Your task to perform on an android device: change the clock style Image 0: 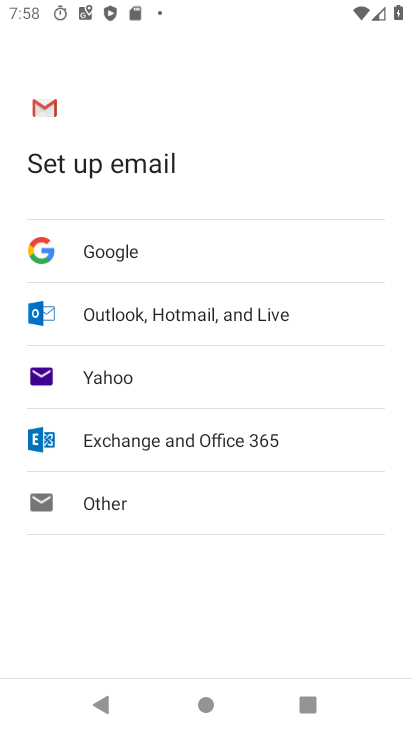
Step 0: press home button
Your task to perform on an android device: change the clock style Image 1: 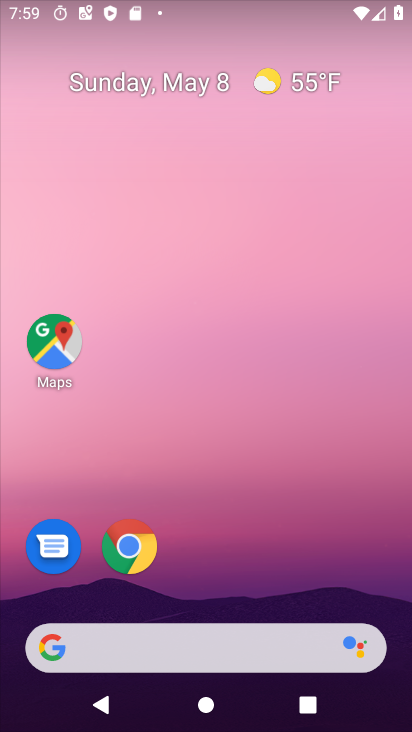
Step 1: drag from (251, 543) to (236, 44)
Your task to perform on an android device: change the clock style Image 2: 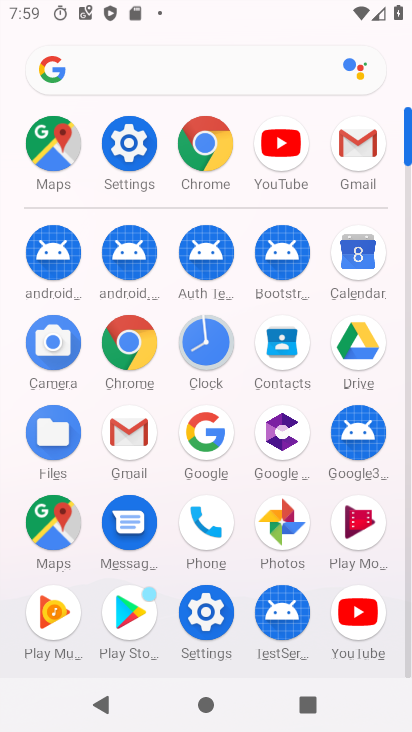
Step 2: click (214, 329)
Your task to perform on an android device: change the clock style Image 3: 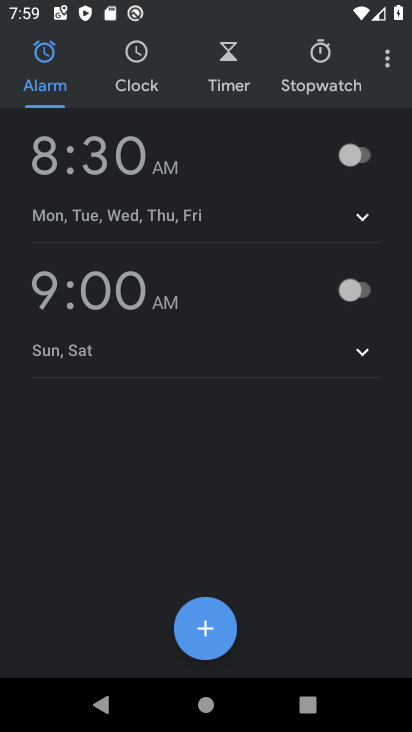
Step 3: click (139, 64)
Your task to perform on an android device: change the clock style Image 4: 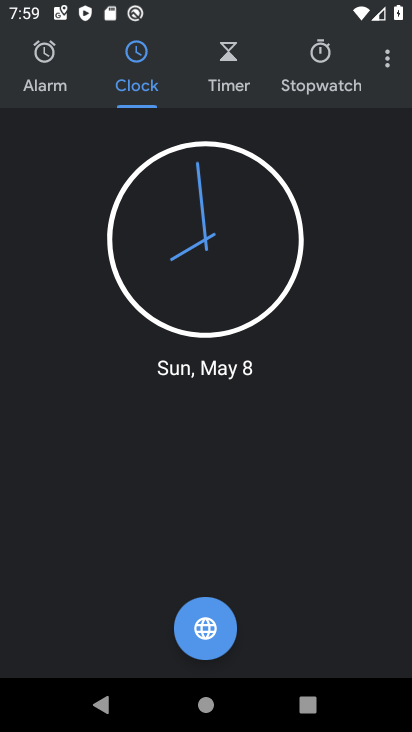
Step 4: click (385, 61)
Your task to perform on an android device: change the clock style Image 5: 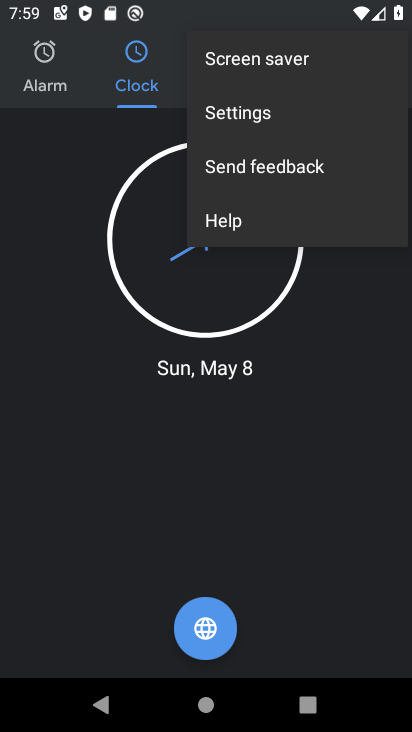
Step 5: click (292, 110)
Your task to perform on an android device: change the clock style Image 6: 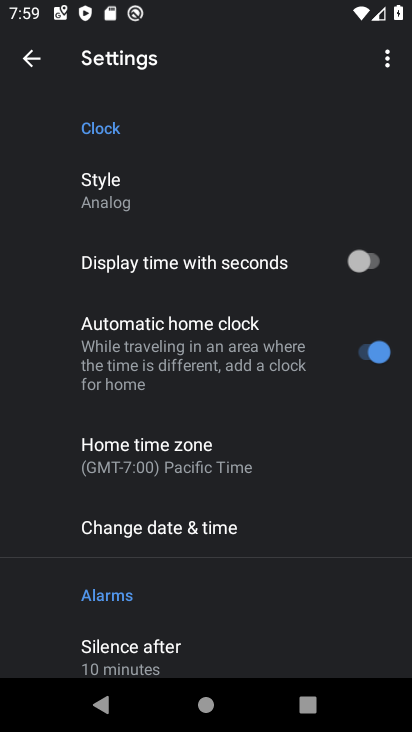
Step 6: click (138, 188)
Your task to perform on an android device: change the clock style Image 7: 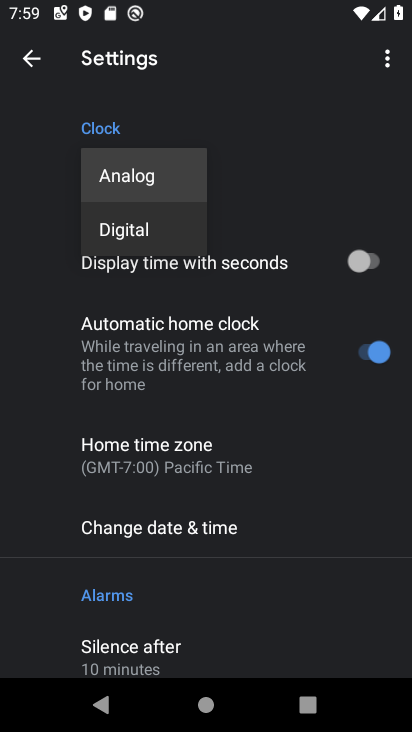
Step 7: click (140, 220)
Your task to perform on an android device: change the clock style Image 8: 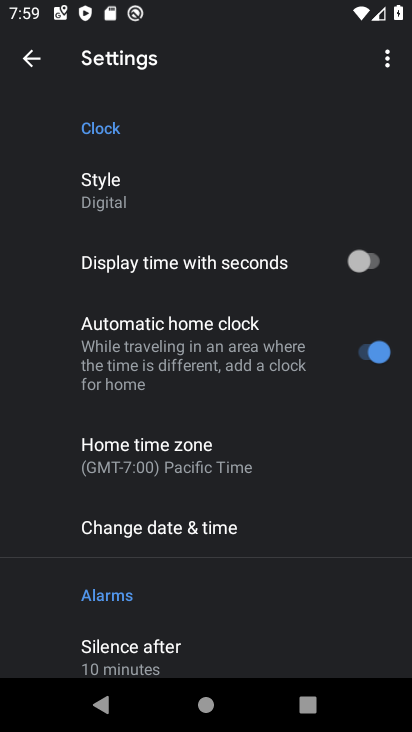
Step 8: click (32, 61)
Your task to perform on an android device: change the clock style Image 9: 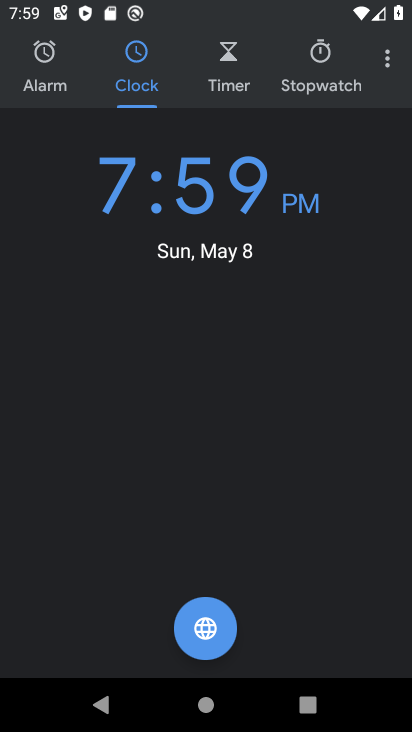
Step 9: task complete